Your task to perform on an android device: Open accessibility settings Image 0: 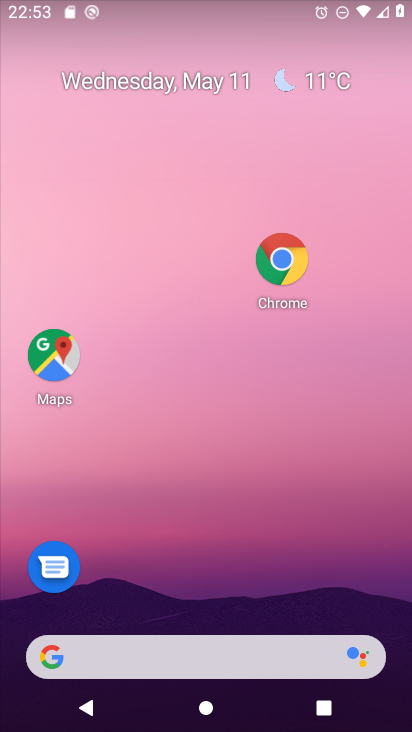
Step 0: press home button
Your task to perform on an android device: Open accessibility settings Image 1: 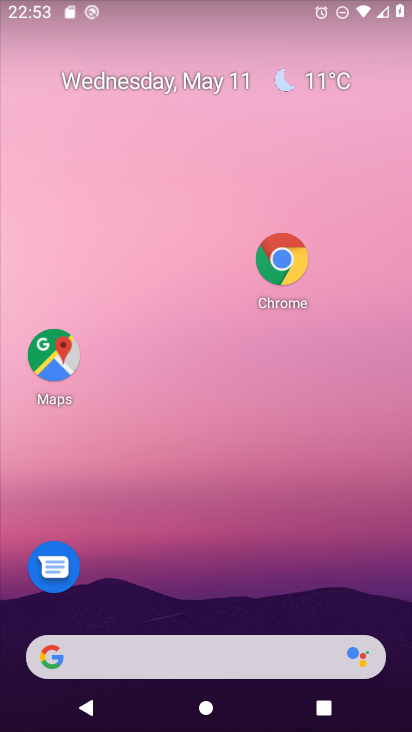
Step 1: drag from (178, 644) to (311, 127)
Your task to perform on an android device: Open accessibility settings Image 2: 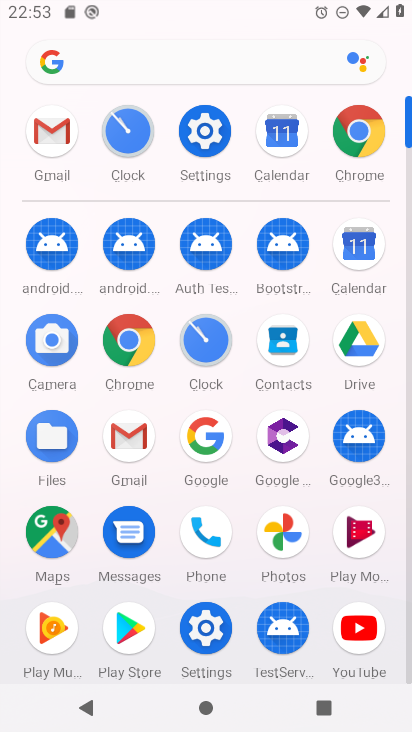
Step 2: click (213, 147)
Your task to perform on an android device: Open accessibility settings Image 3: 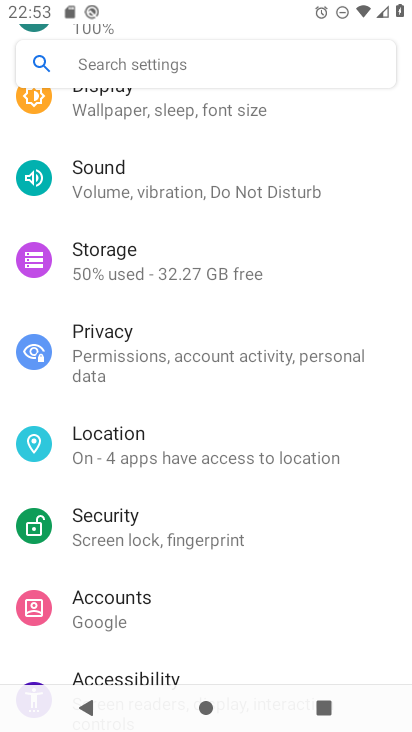
Step 3: drag from (184, 622) to (338, 238)
Your task to perform on an android device: Open accessibility settings Image 4: 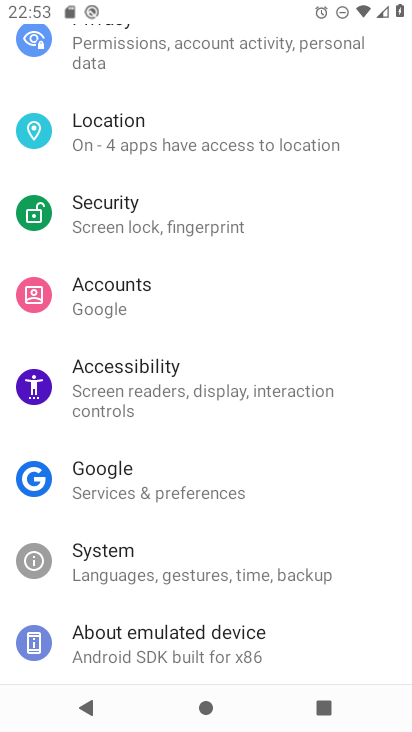
Step 4: click (166, 375)
Your task to perform on an android device: Open accessibility settings Image 5: 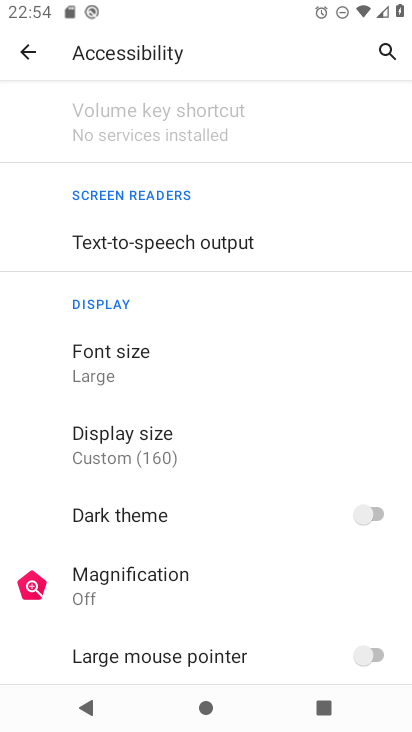
Step 5: task complete